Your task to perform on an android device: remove spam from my inbox in the gmail app Image 0: 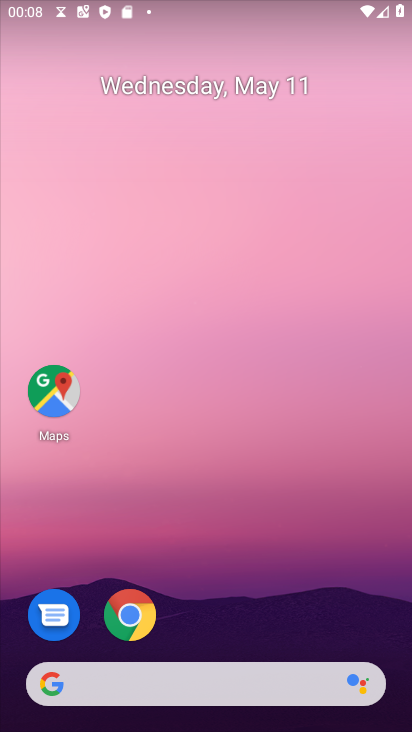
Step 0: drag from (279, 593) to (259, 29)
Your task to perform on an android device: remove spam from my inbox in the gmail app Image 1: 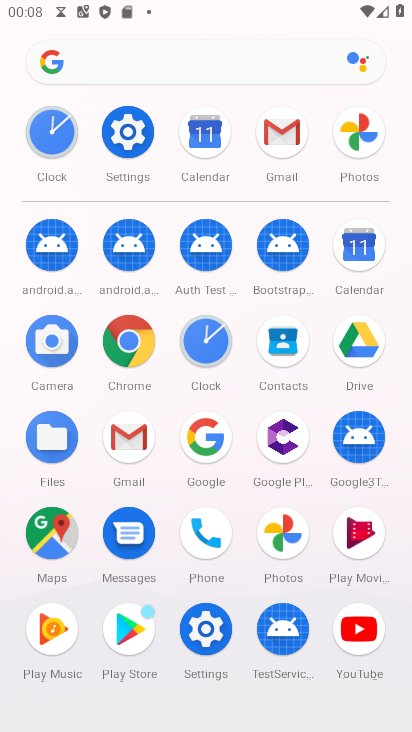
Step 1: click (277, 132)
Your task to perform on an android device: remove spam from my inbox in the gmail app Image 2: 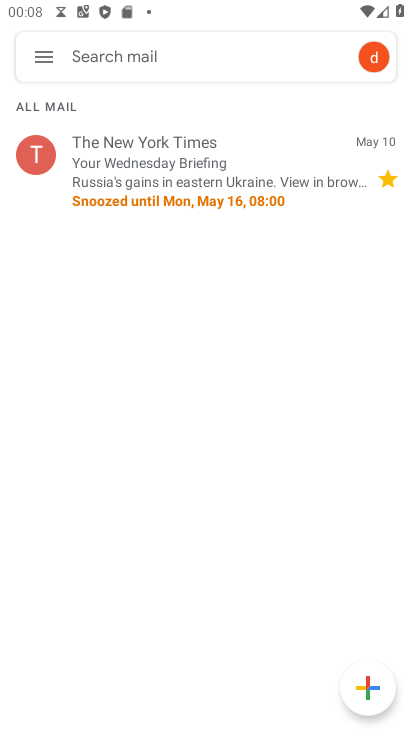
Step 2: click (41, 59)
Your task to perform on an android device: remove spam from my inbox in the gmail app Image 3: 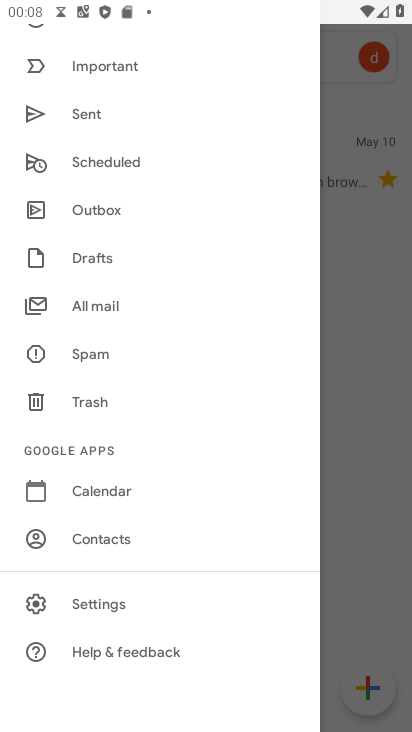
Step 3: click (98, 356)
Your task to perform on an android device: remove spam from my inbox in the gmail app Image 4: 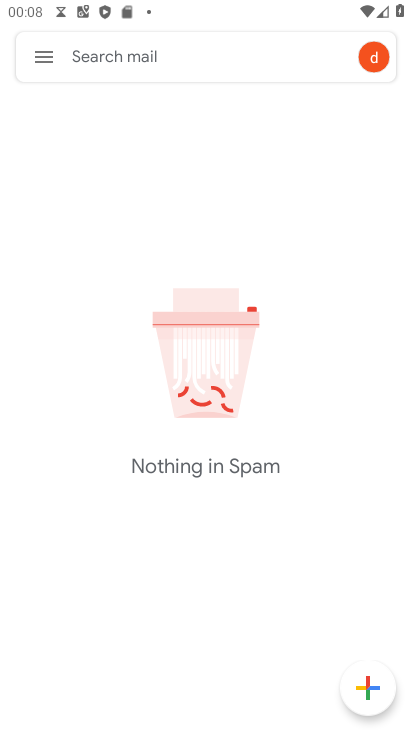
Step 4: task complete